Your task to perform on an android device: Add razer nari to the cart on ebay.com, then select checkout. Image 0: 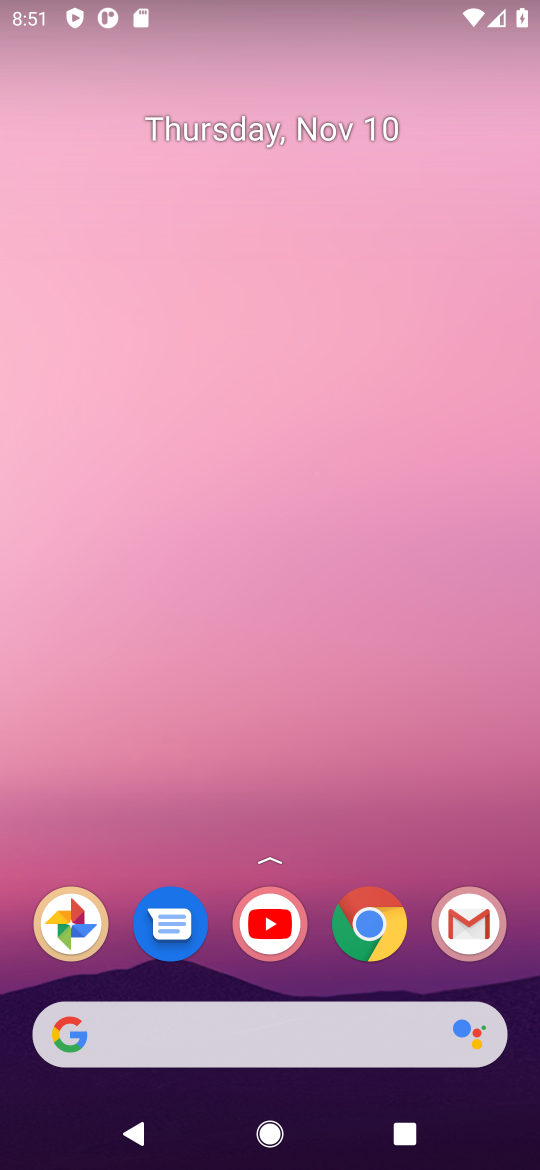
Step 0: click (384, 933)
Your task to perform on an android device: Add razer nari to the cart on ebay.com, then select checkout. Image 1: 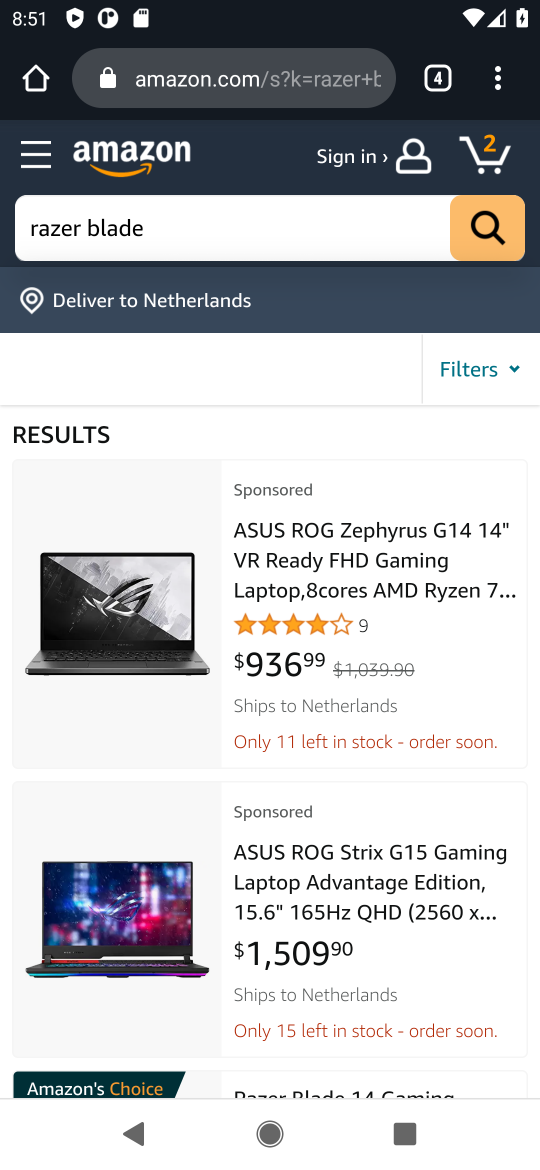
Step 1: click (187, 93)
Your task to perform on an android device: Add razer nari to the cart on ebay.com, then select checkout. Image 2: 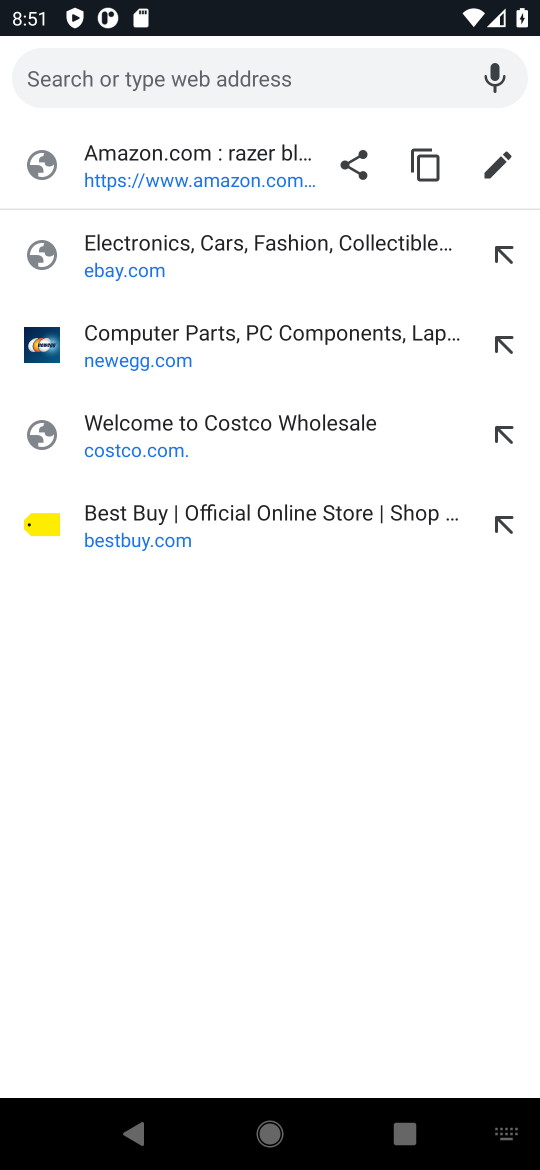
Step 2: click (136, 248)
Your task to perform on an android device: Add razer nari to the cart on ebay.com, then select checkout. Image 3: 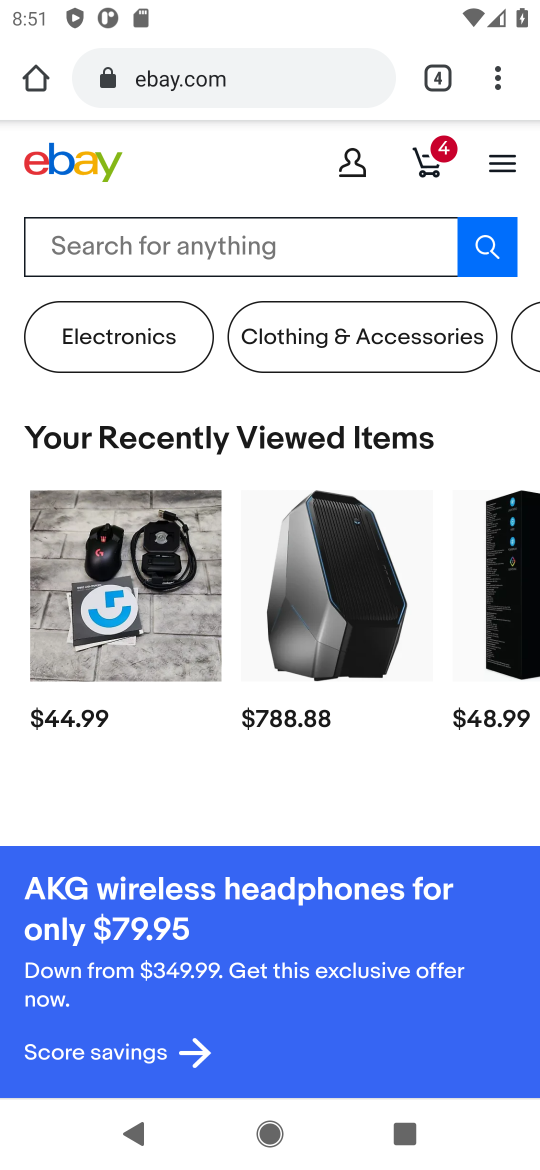
Step 3: click (116, 250)
Your task to perform on an android device: Add razer nari to the cart on ebay.com, then select checkout. Image 4: 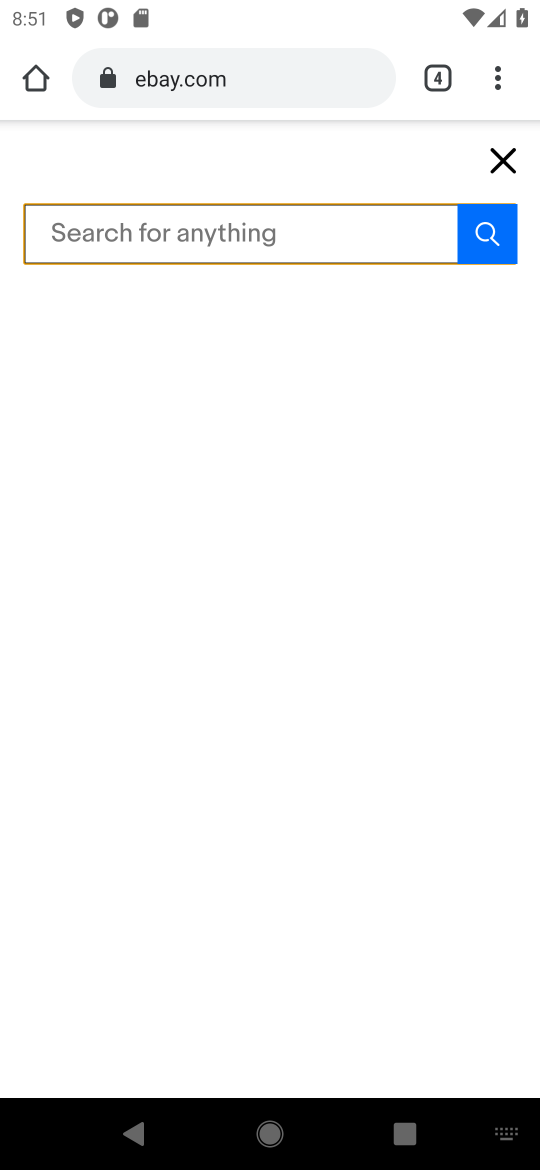
Step 4: type "razer nari"
Your task to perform on an android device: Add razer nari to the cart on ebay.com, then select checkout. Image 5: 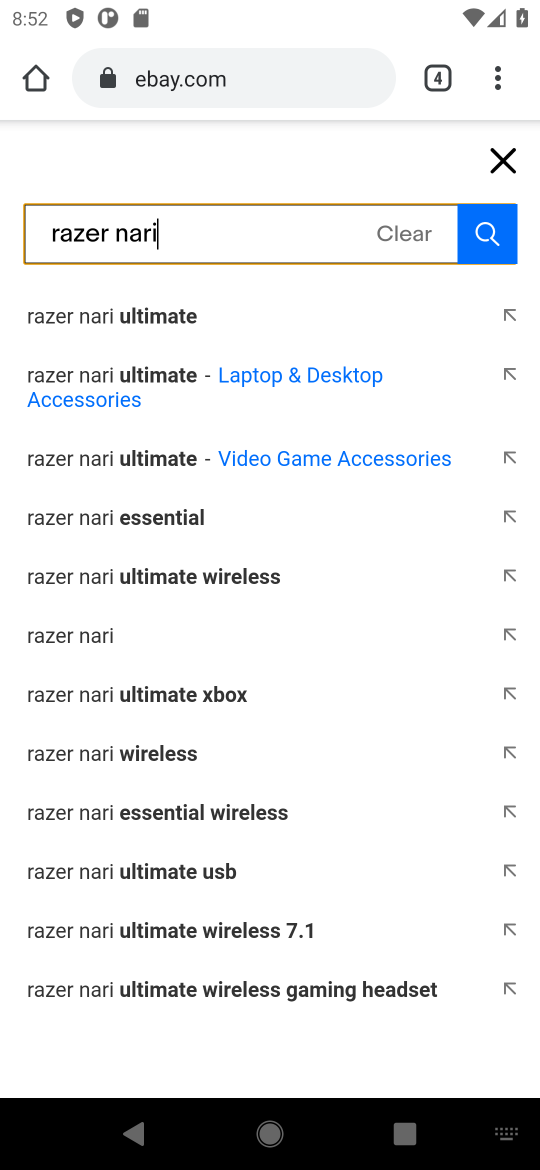
Step 5: click (56, 648)
Your task to perform on an android device: Add razer nari to the cart on ebay.com, then select checkout. Image 6: 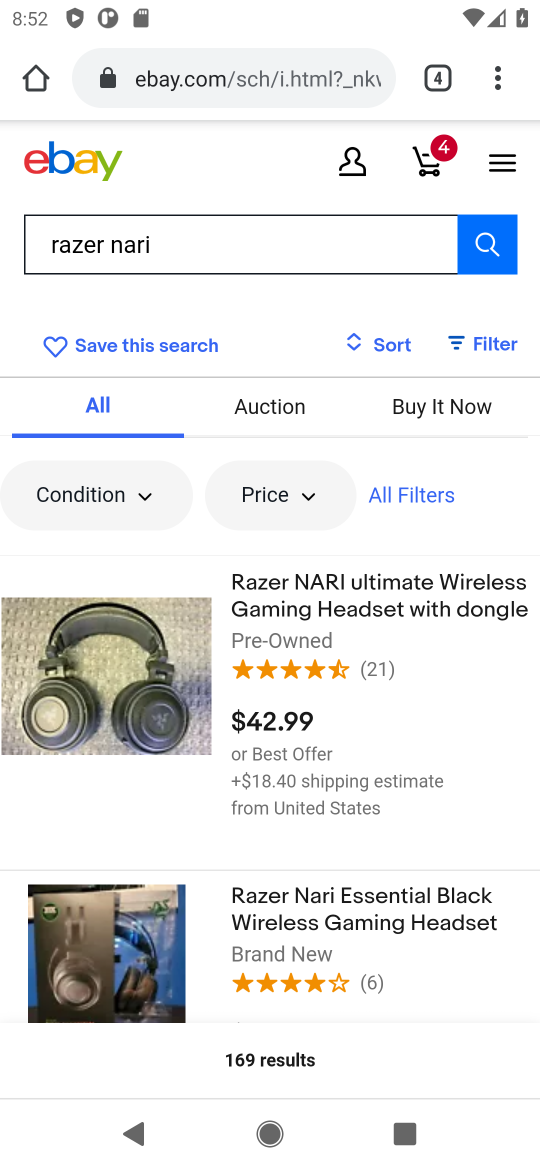
Step 6: click (107, 683)
Your task to perform on an android device: Add razer nari to the cart on ebay.com, then select checkout. Image 7: 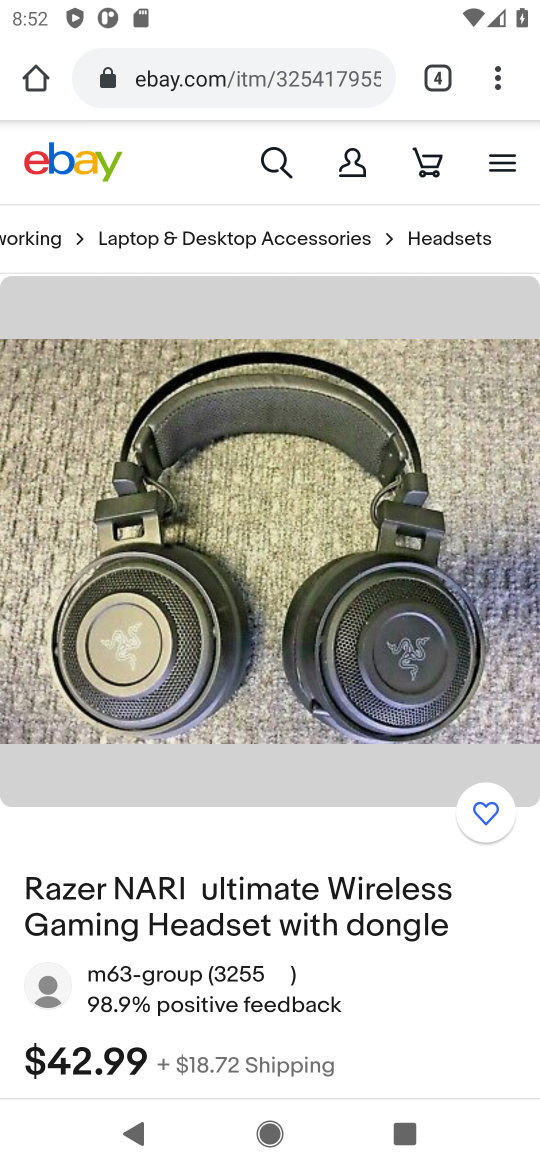
Step 7: drag from (159, 735) to (159, 314)
Your task to perform on an android device: Add razer nari to the cart on ebay.com, then select checkout. Image 8: 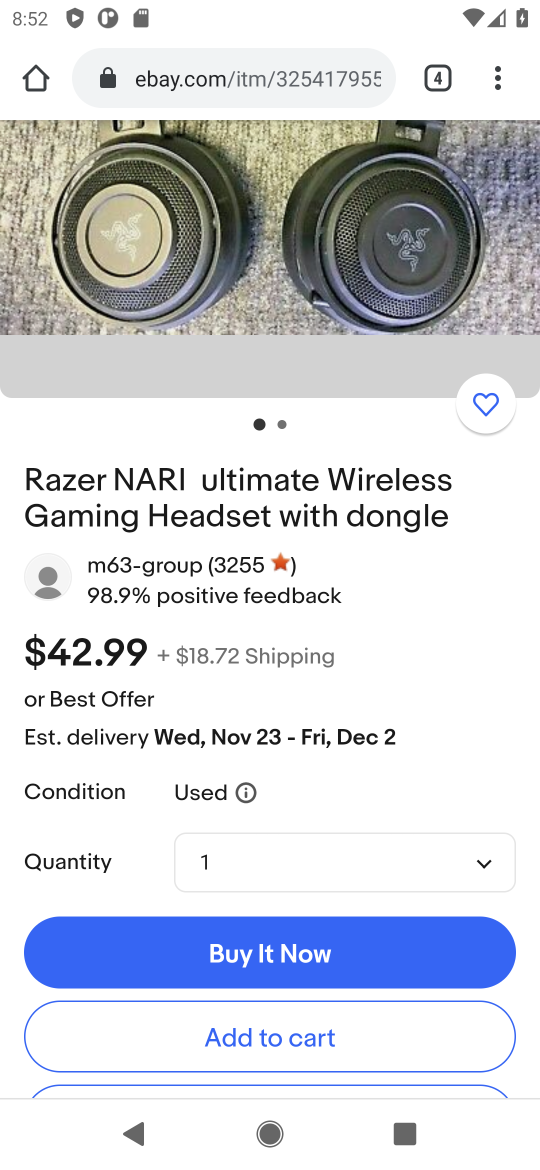
Step 8: drag from (362, 882) to (323, 454)
Your task to perform on an android device: Add razer nari to the cart on ebay.com, then select checkout. Image 9: 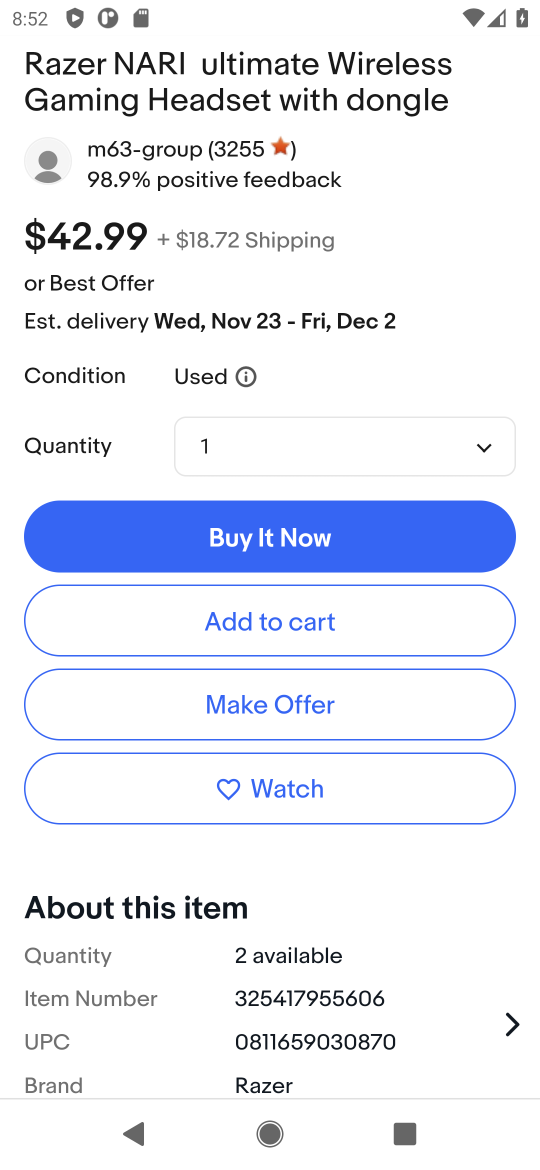
Step 9: click (250, 620)
Your task to perform on an android device: Add razer nari to the cart on ebay.com, then select checkout. Image 10: 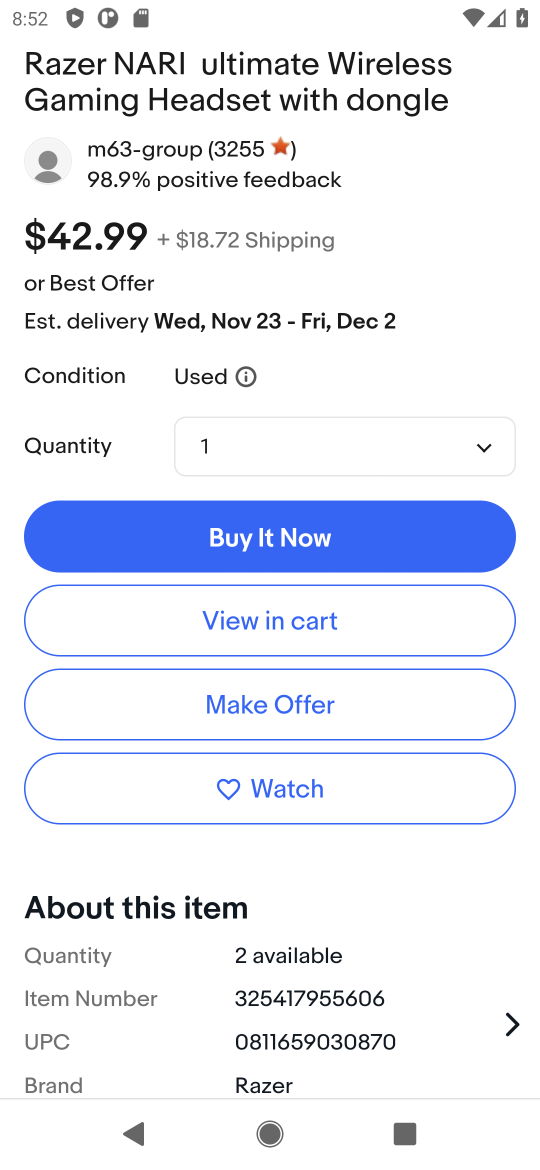
Step 10: click (250, 620)
Your task to perform on an android device: Add razer nari to the cart on ebay.com, then select checkout. Image 11: 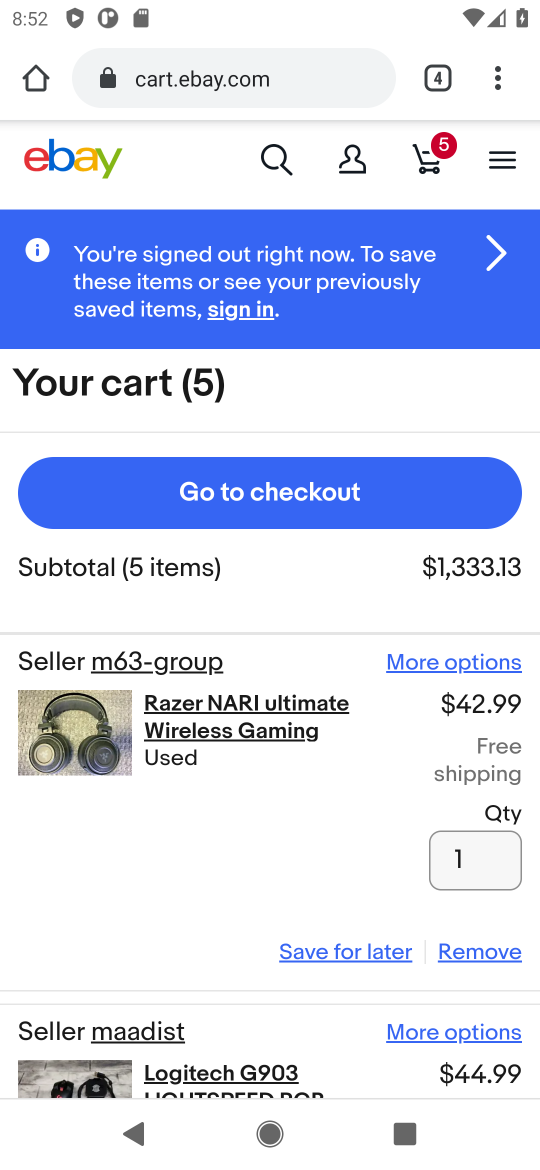
Step 11: click (257, 498)
Your task to perform on an android device: Add razer nari to the cart on ebay.com, then select checkout. Image 12: 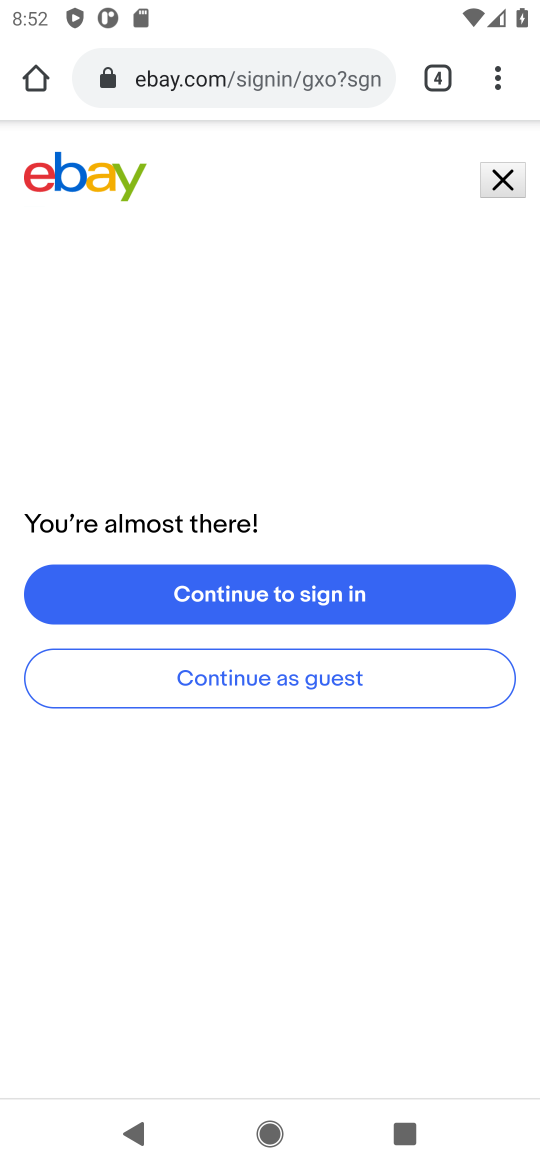
Step 12: task complete